Your task to perform on an android device: move an email to a new category in the gmail app Image 0: 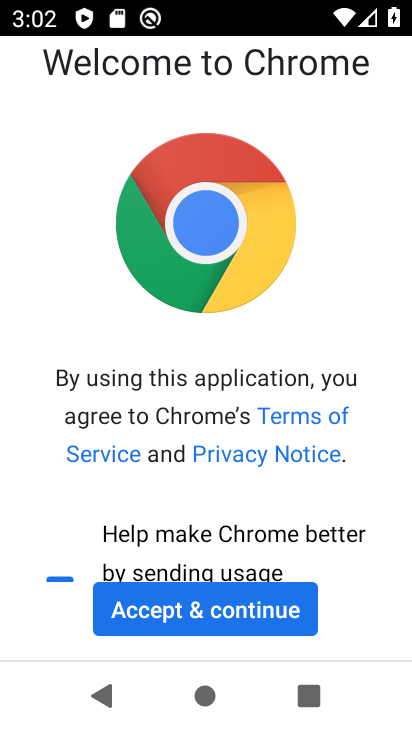
Step 0: click (352, 509)
Your task to perform on an android device: move an email to a new category in the gmail app Image 1: 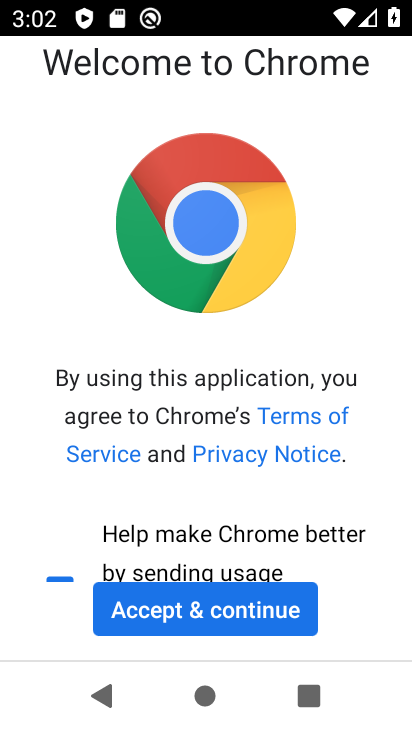
Step 1: press home button
Your task to perform on an android device: move an email to a new category in the gmail app Image 2: 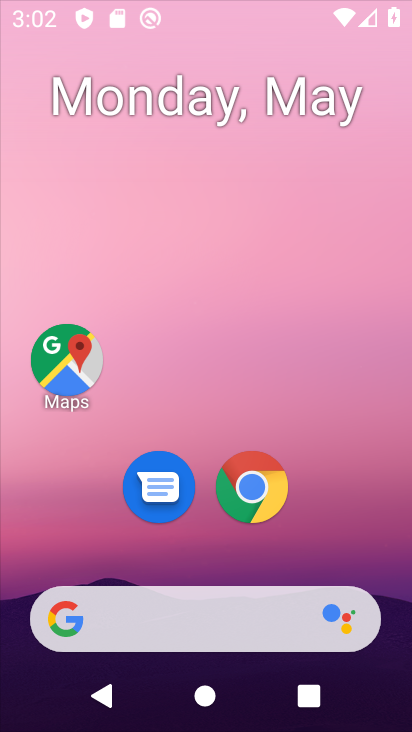
Step 2: drag from (192, 589) to (253, 301)
Your task to perform on an android device: move an email to a new category in the gmail app Image 3: 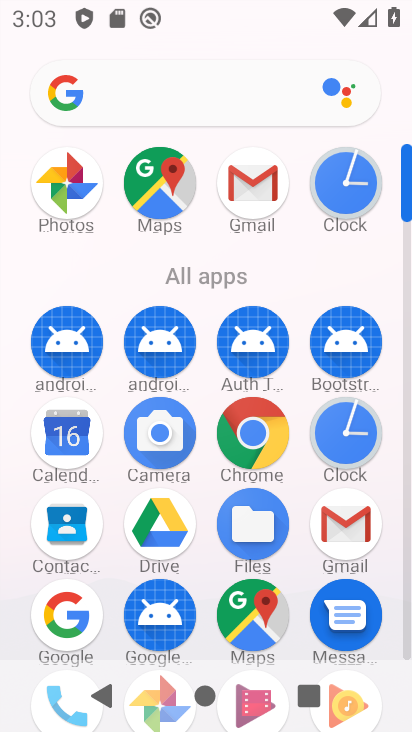
Step 3: click (347, 502)
Your task to perform on an android device: move an email to a new category in the gmail app Image 4: 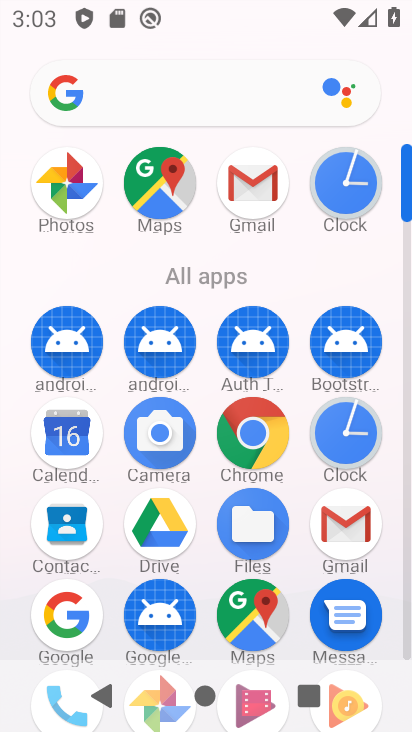
Step 4: click (347, 502)
Your task to perform on an android device: move an email to a new category in the gmail app Image 5: 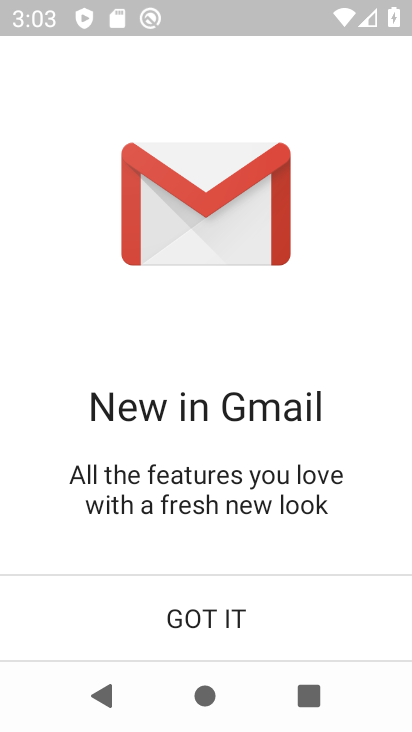
Step 5: click (189, 627)
Your task to perform on an android device: move an email to a new category in the gmail app Image 6: 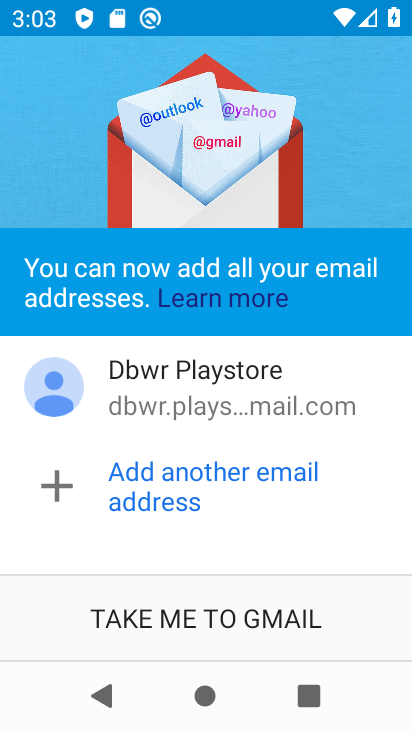
Step 6: click (205, 616)
Your task to perform on an android device: move an email to a new category in the gmail app Image 7: 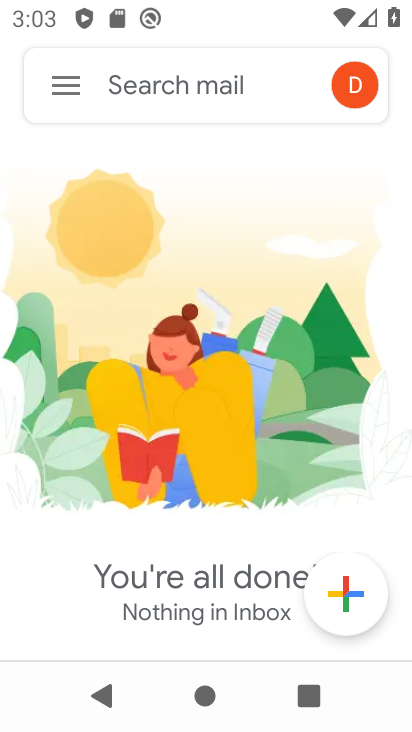
Step 7: click (67, 87)
Your task to perform on an android device: move an email to a new category in the gmail app Image 8: 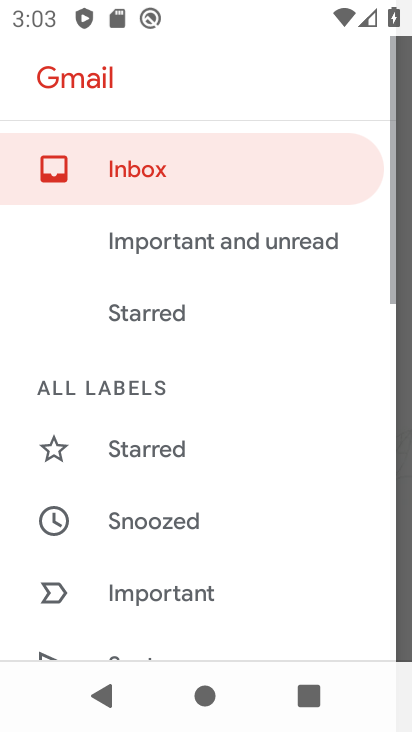
Step 8: drag from (217, 487) to (255, 234)
Your task to perform on an android device: move an email to a new category in the gmail app Image 9: 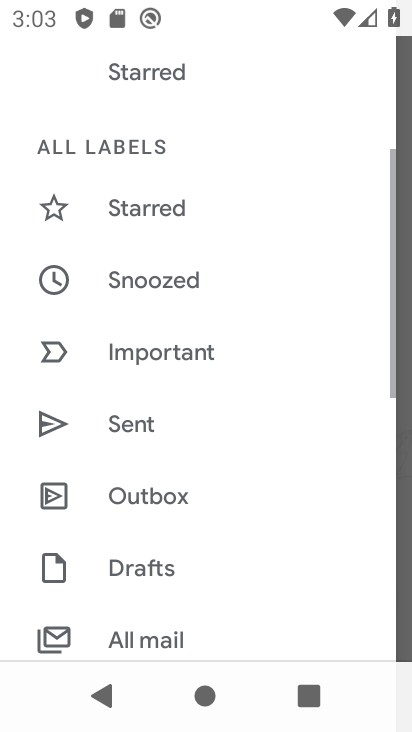
Step 9: drag from (226, 587) to (211, 185)
Your task to perform on an android device: move an email to a new category in the gmail app Image 10: 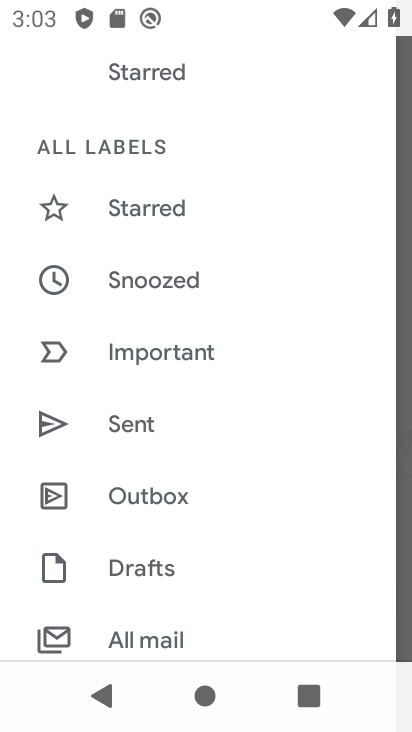
Step 10: drag from (146, 556) to (186, 288)
Your task to perform on an android device: move an email to a new category in the gmail app Image 11: 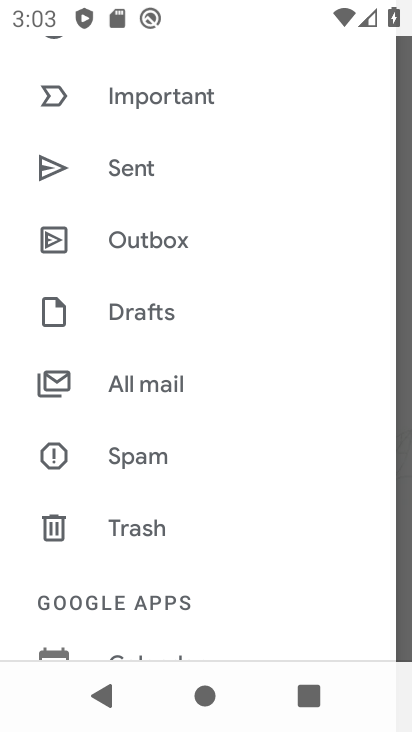
Step 11: drag from (163, 597) to (255, 308)
Your task to perform on an android device: move an email to a new category in the gmail app Image 12: 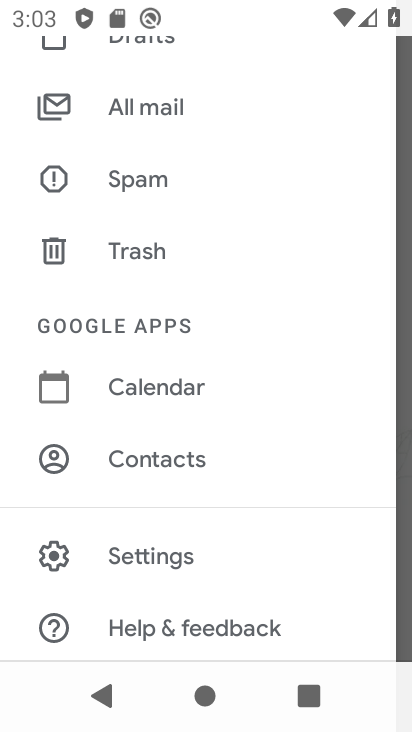
Step 12: drag from (191, 133) to (276, 716)
Your task to perform on an android device: move an email to a new category in the gmail app Image 13: 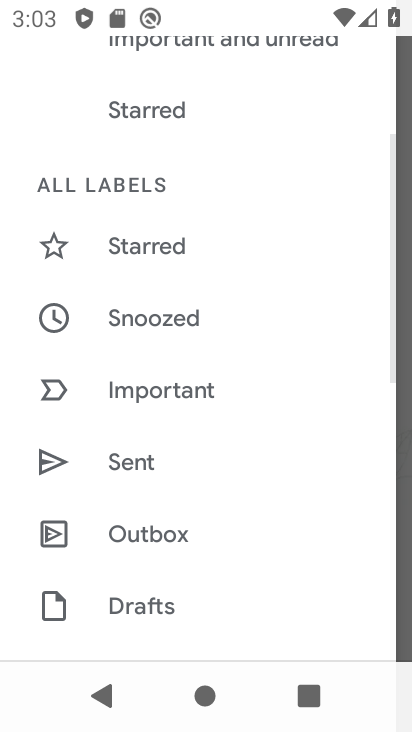
Step 13: drag from (149, 120) to (295, 696)
Your task to perform on an android device: move an email to a new category in the gmail app Image 14: 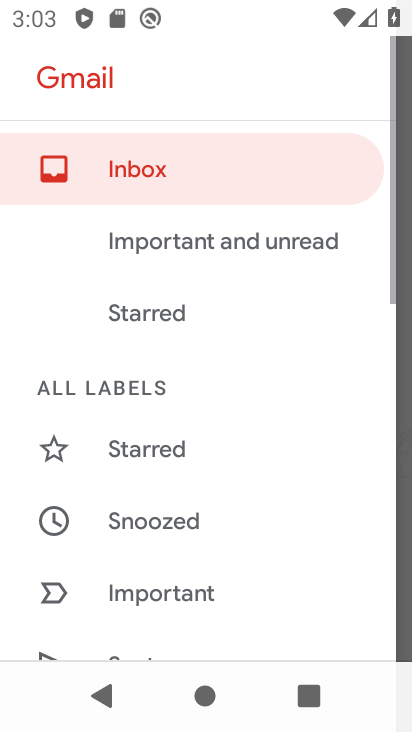
Step 14: click (134, 158)
Your task to perform on an android device: move an email to a new category in the gmail app Image 15: 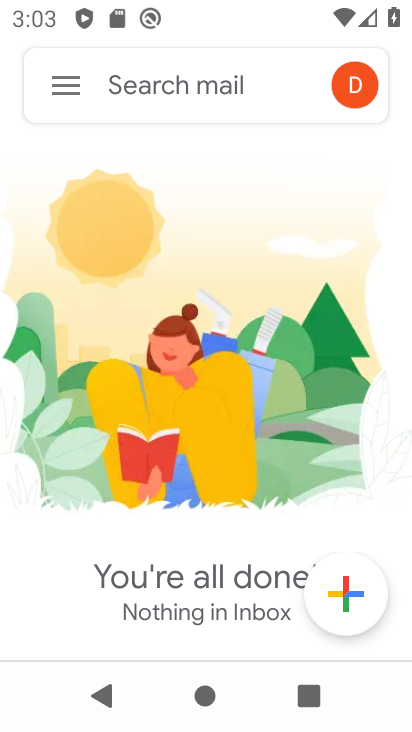
Step 15: task complete